Your task to perform on an android device: turn off translation in the chrome app Image 0: 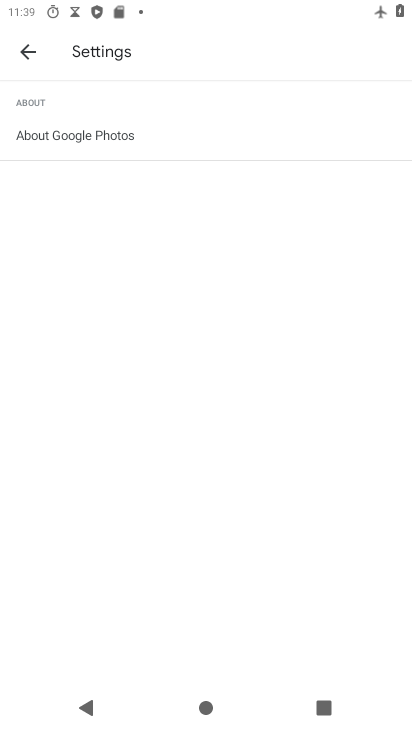
Step 0: press home button
Your task to perform on an android device: turn off translation in the chrome app Image 1: 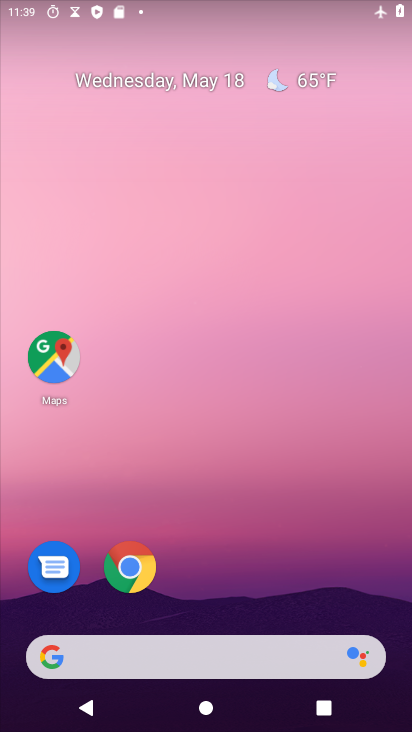
Step 1: click (135, 563)
Your task to perform on an android device: turn off translation in the chrome app Image 2: 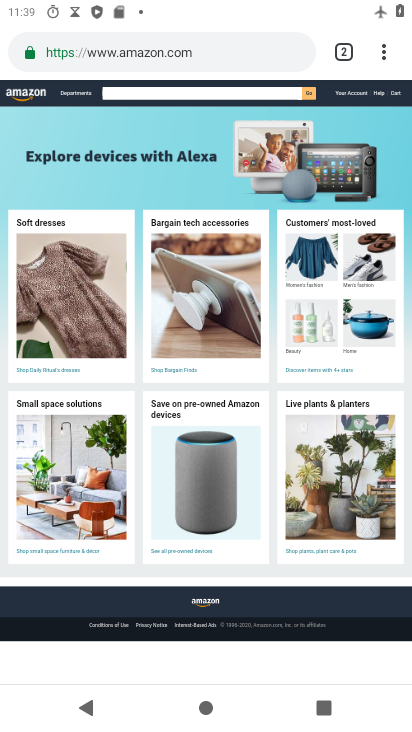
Step 2: click (385, 54)
Your task to perform on an android device: turn off translation in the chrome app Image 3: 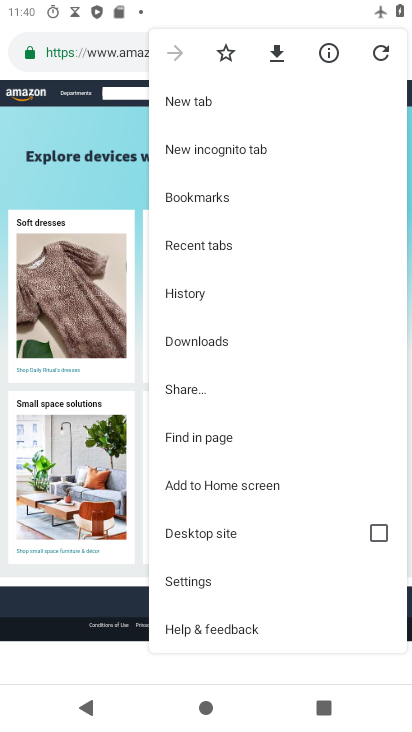
Step 3: click (184, 579)
Your task to perform on an android device: turn off translation in the chrome app Image 4: 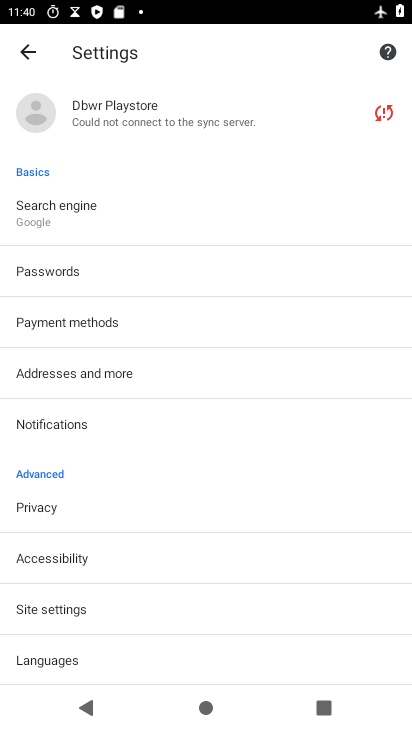
Step 4: click (95, 653)
Your task to perform on an android device: turn off translation in the chrome app Image 5: 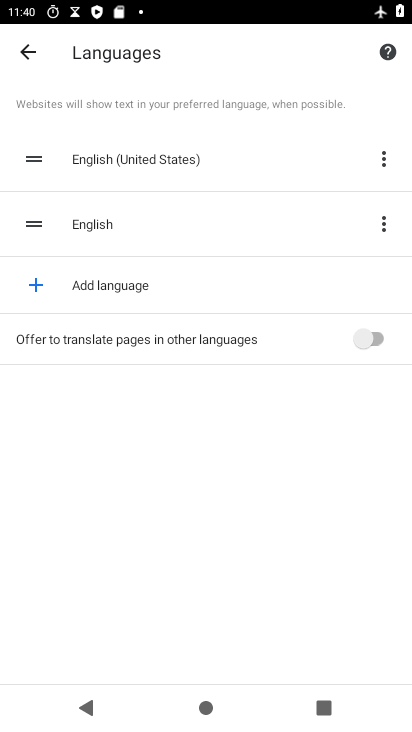
Step 5: task complete